Your task to perform on an android device: see tabs open on other devices in the chrome app Image 0: 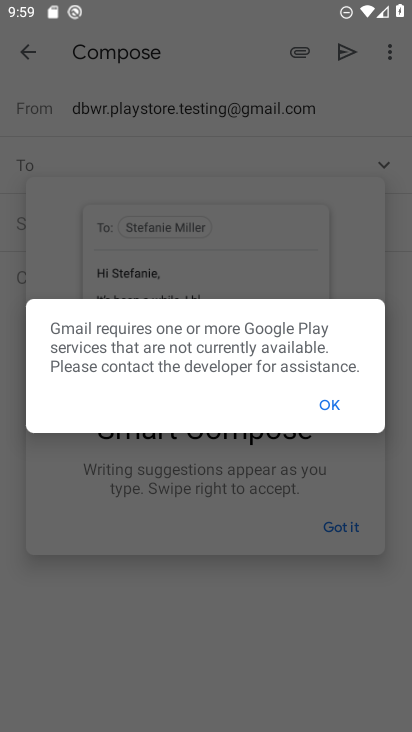
Step 0: press home button
Your task to perform on an android device: see tabs open on other devices in the chrome app Image 1: 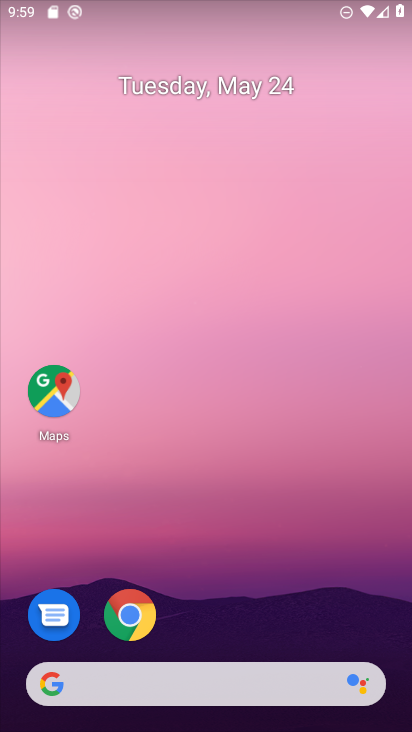
Step 1: drag from (379, 621) to (392, 263)
Your task to perform on an android device: see tabs open on other devices in the chrome app Image 2: 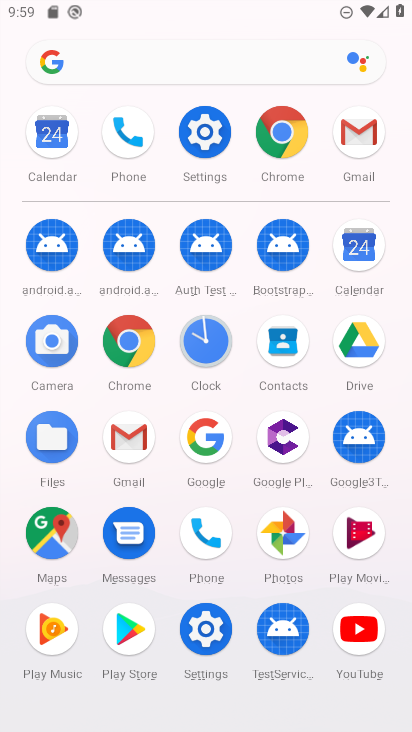
Step 2: click (123, 358)
Your task to perform on an android device: see tabs open on other devices in the chrome app Image 3: 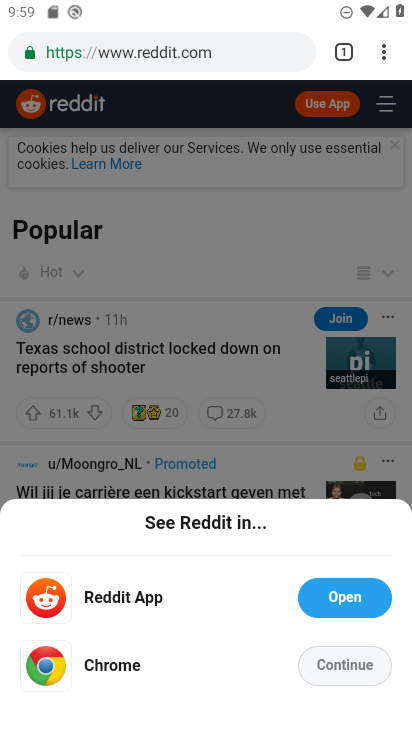
Step 3: click (379, 55)
Your task to perform on an android device: see tabs open on other devices in the chrome app Image 4: 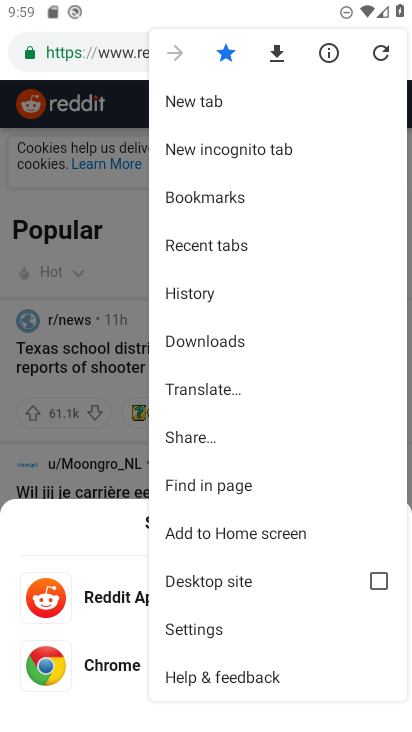
Step 4: click (286, 256)
Your task to perform on an android device: see tabs open on other devices in the chrome app Image 5: 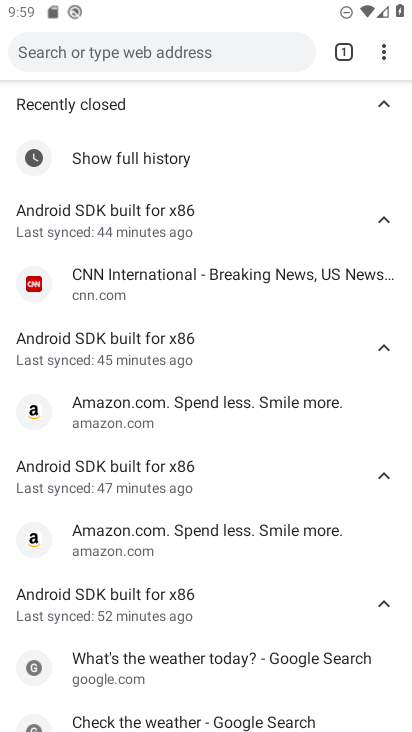
Step 5: click (342, 58)
Your task to perform on an android device: see tabs open on other devices in the chrome app Image 6: 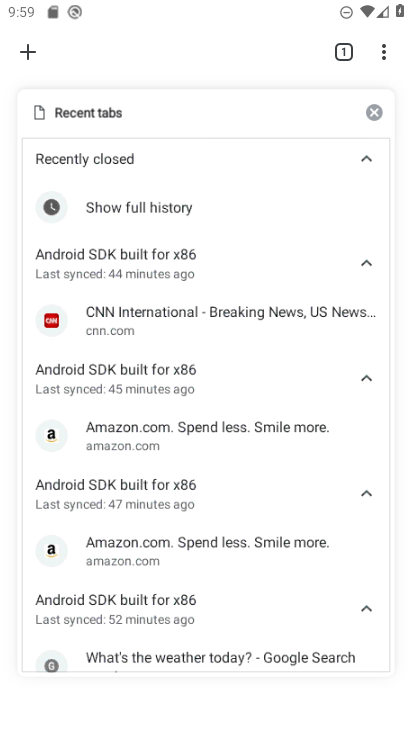
Step 6: task complete